Your task to perform on an android device: check data usage Image 0: 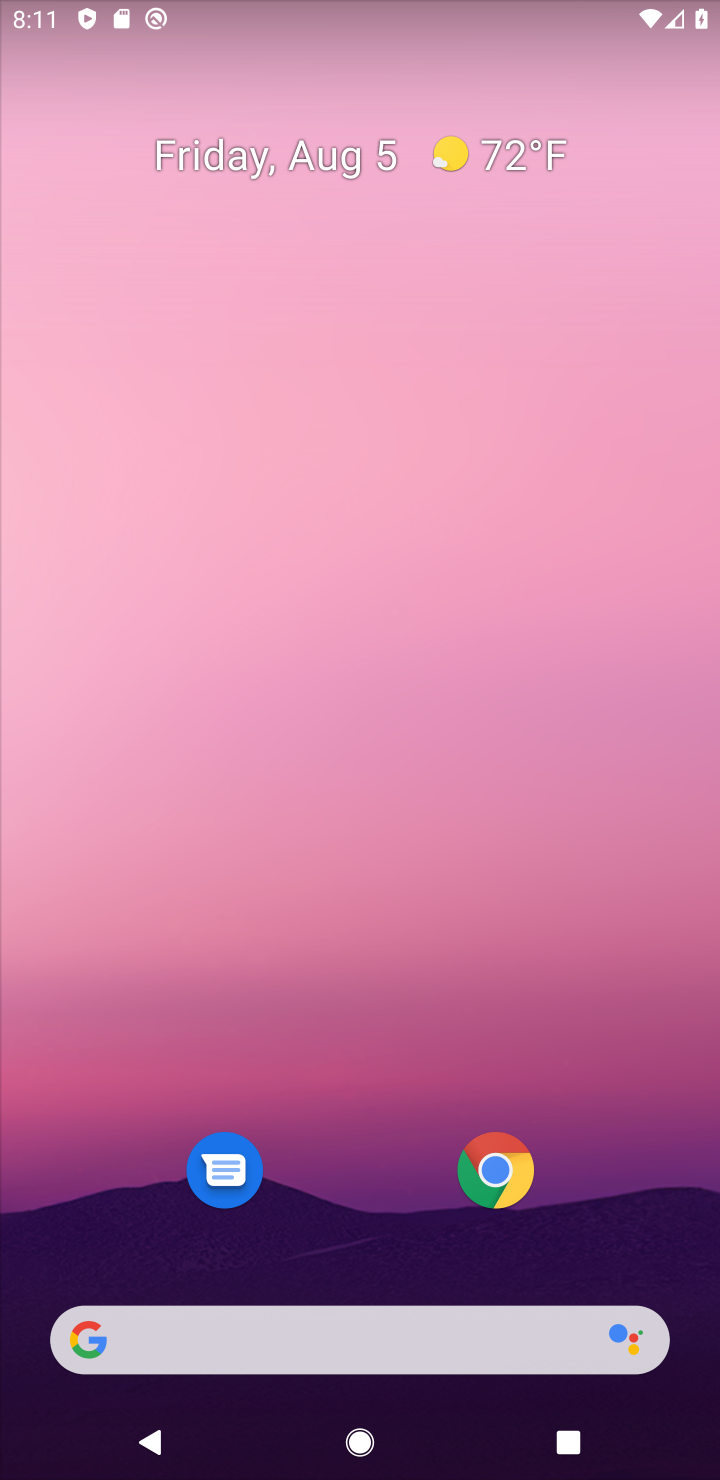
Step 0: drag from (634, 1228) to (595, 246)
Your task to perform on an android device: check data usage Image 1: 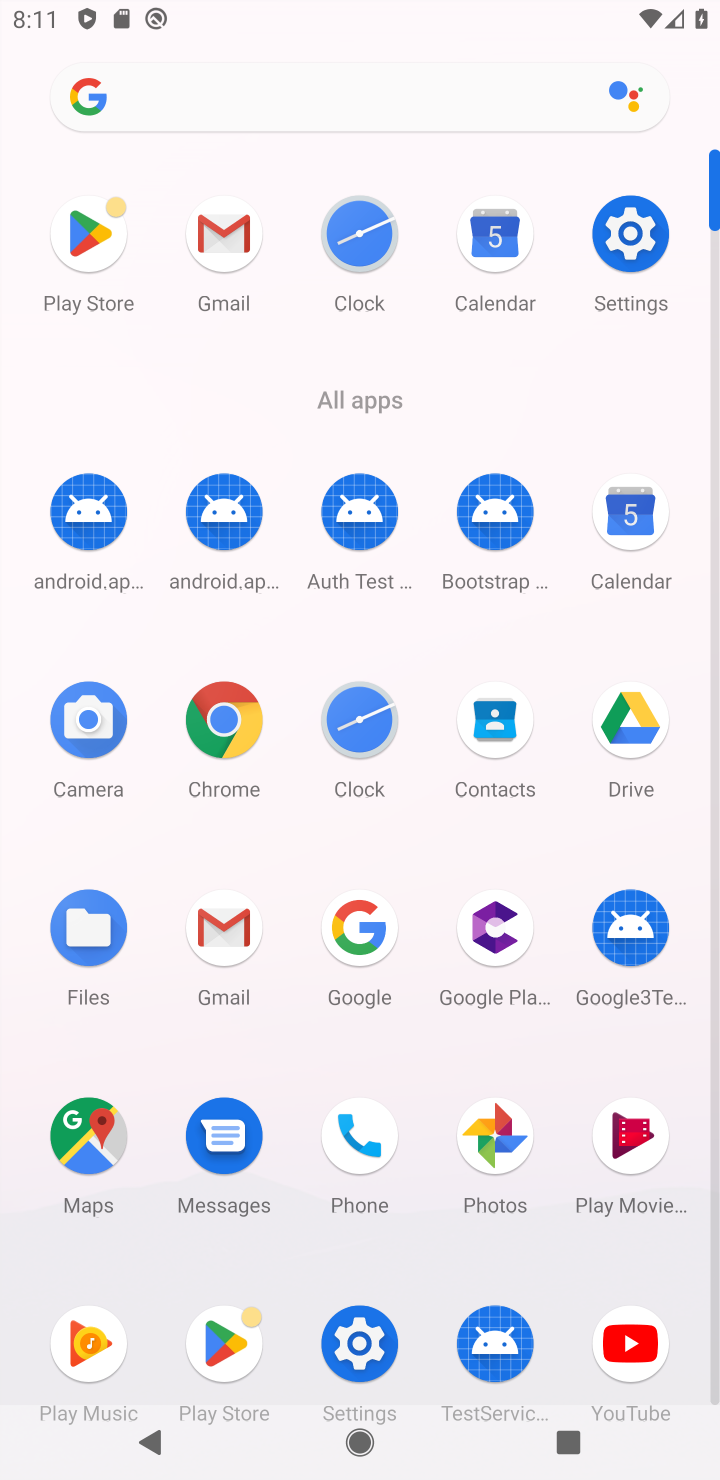
Step 1: click (356, 1346)
Your task to perform on an android device: check data usage Image 2: 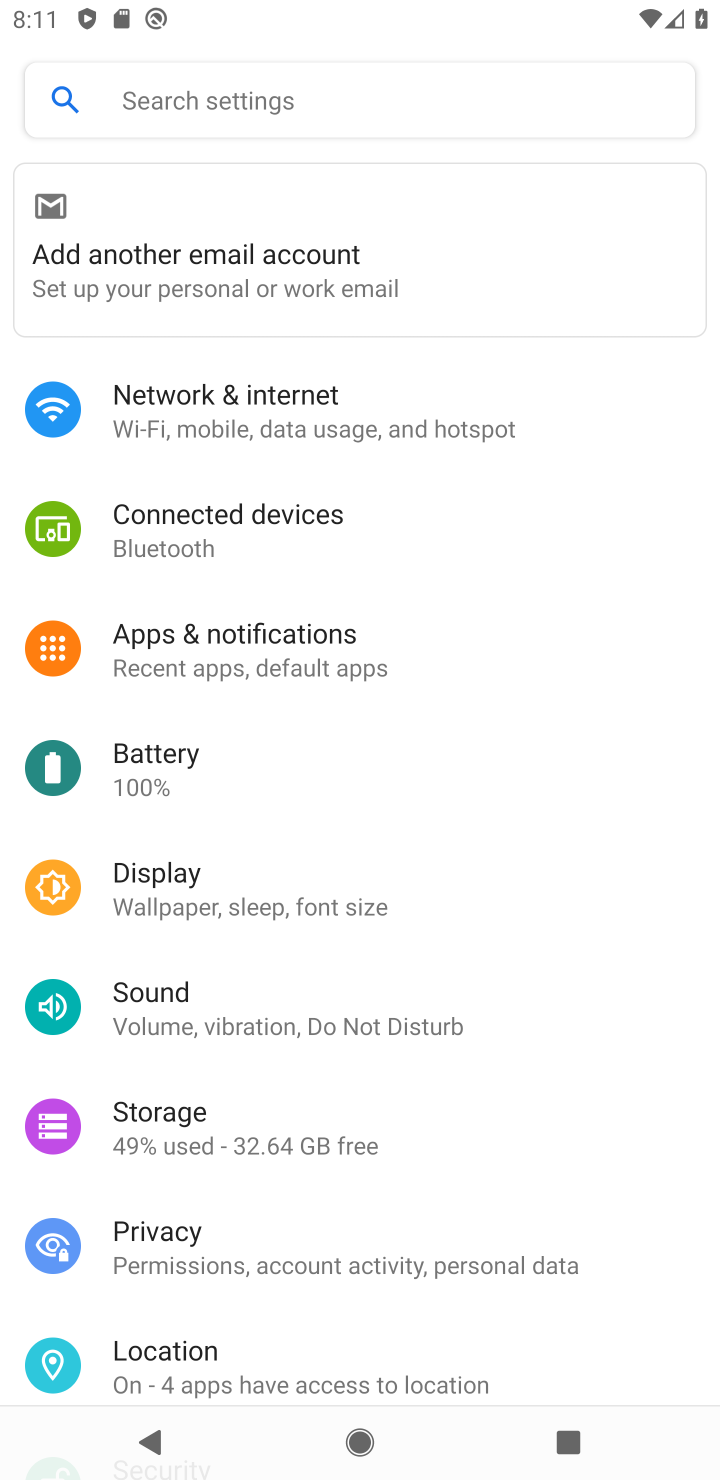
Step 2: click (198, 404)
Your task to perform on an android device: check data usage Image 3: 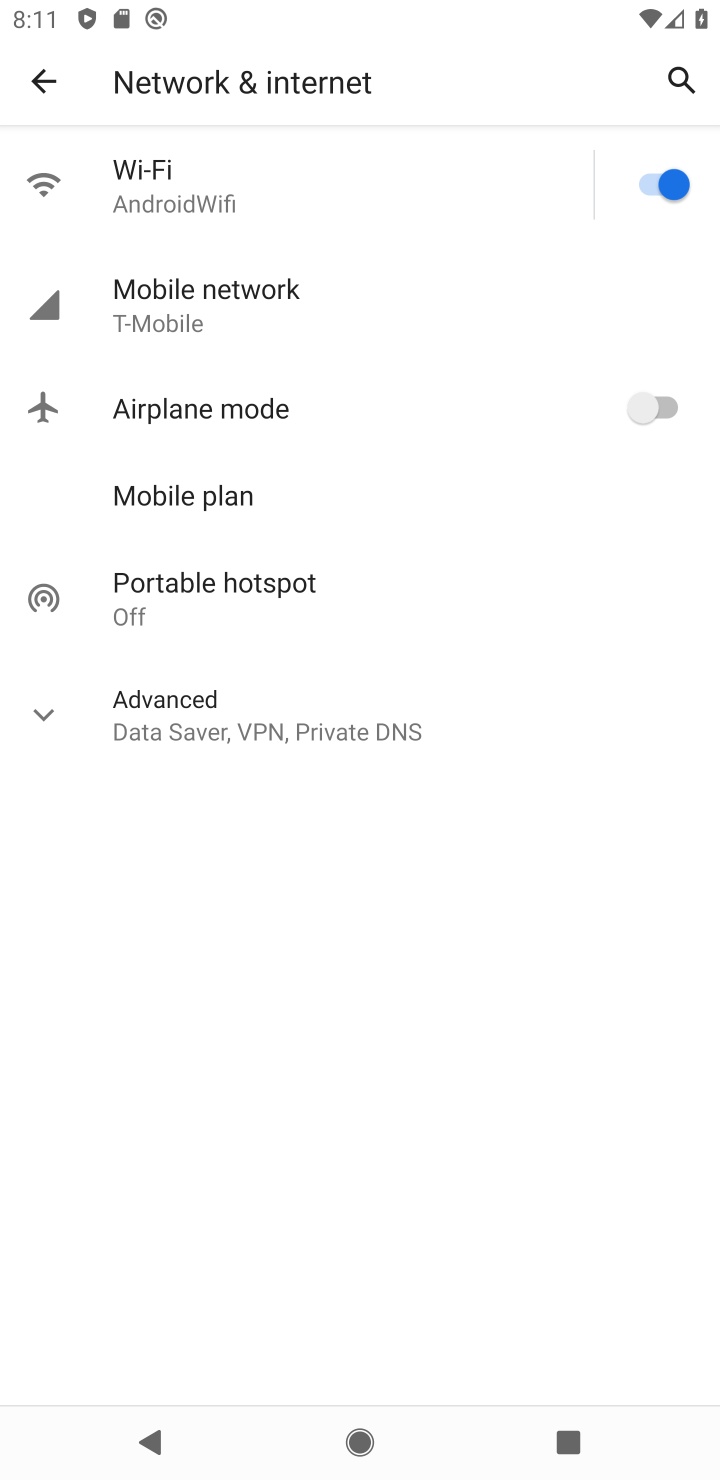
Step 3: click (178, 304)
Your task to perform on an android device: check data usage Image 4: 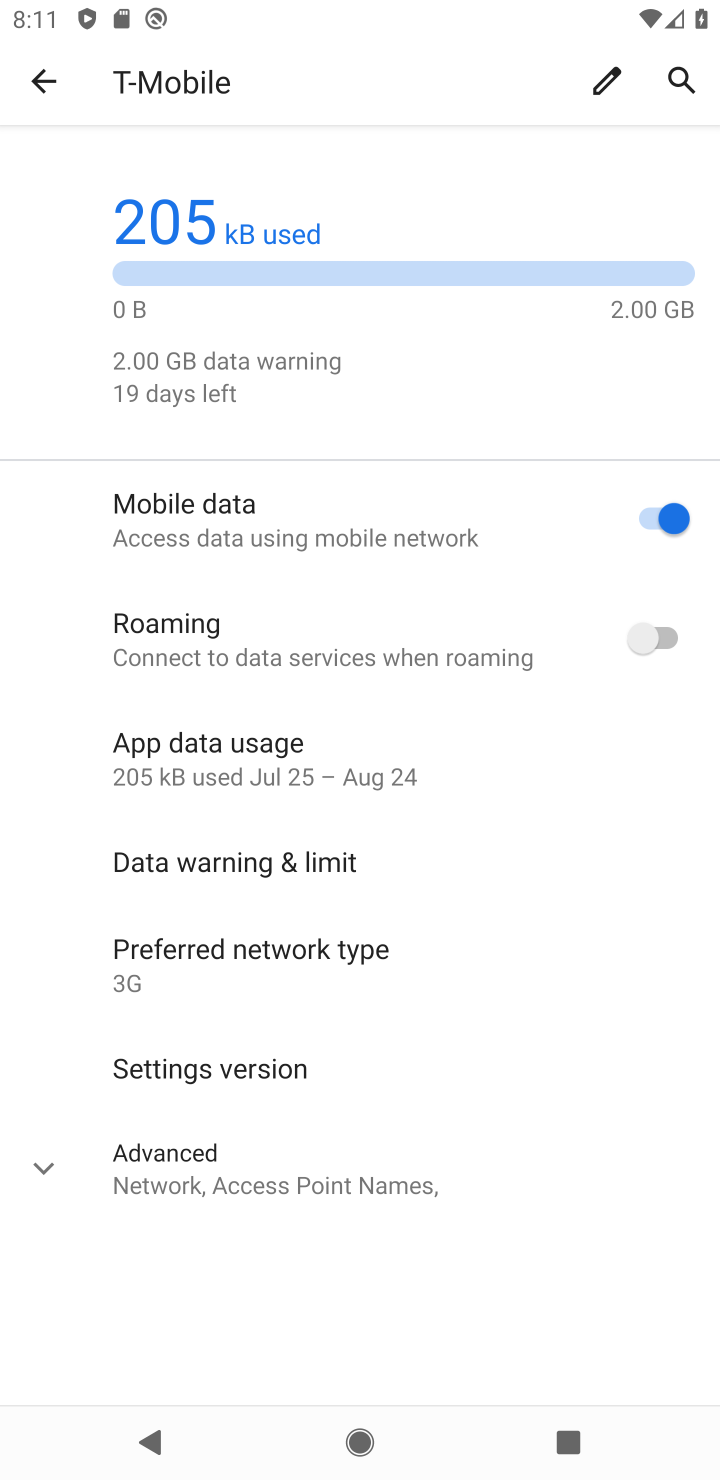
Step 4: task complete